Your task to perform on an android device: Open Youtube and go to "Your channel" Image 0: 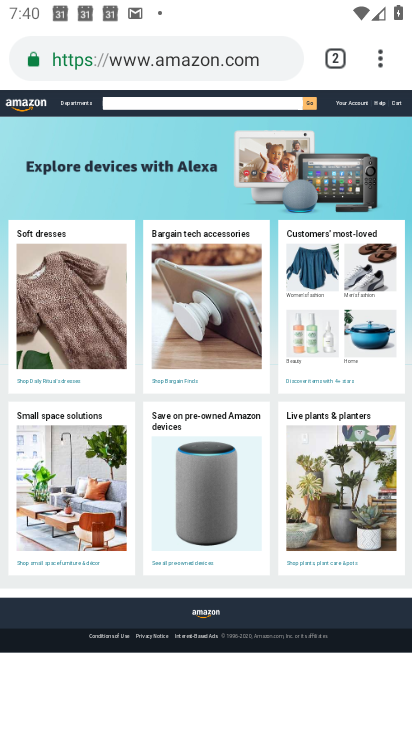
Step 0: press home button
Your task to perform on an android device: Open Youtube and go to "Your channel" Image 1: 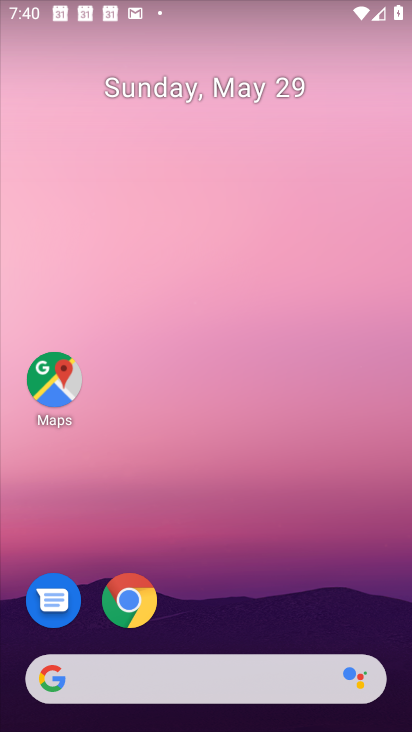
Step 1: drag from (314, 580) to (338, 150)
Your task to perform on an android device: Open Youtube and go to "Your channel" Image 2: 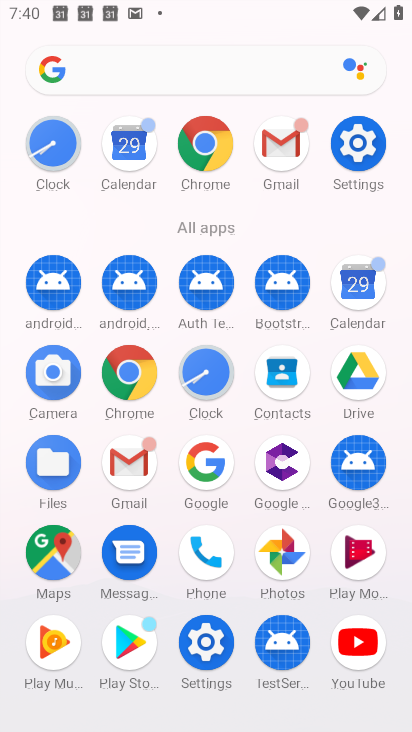
Step 2: click (352, 645)
Your task to perform on an android device: Open Youtube and go to "Your channel" Image 3: 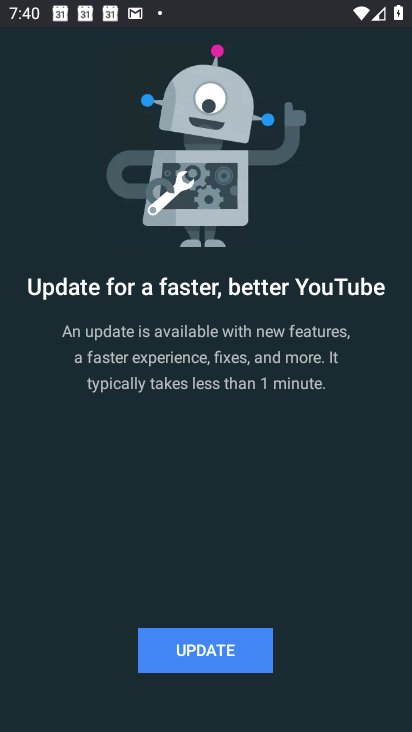
Step 3: click (198, 647)
Your task to perform on an android device: Open Youtube and go to "Your channel" Image 4: 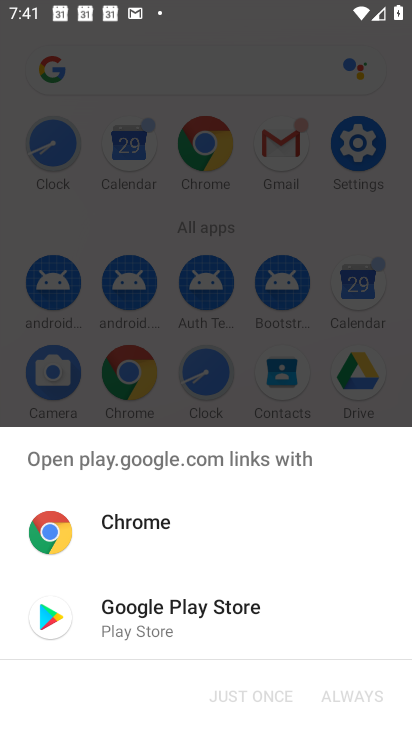
Step 4: click (197, 613)
Your task to perform on an android device: Open Youtube and go to "Your channel" Image 5: 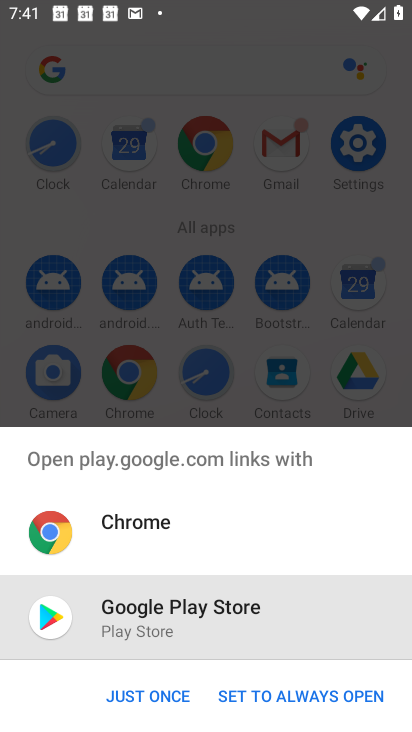
Step 5: click (121, 705)
Your task to perform on an android device: Open Youtube and go to "Your channel" Image 6: 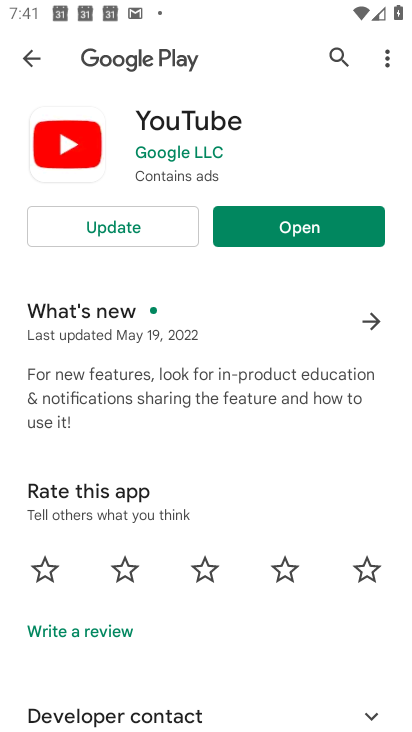
Step 6: click (156, 240)
Your task to perform on an android device: Open Youtube and go to "Your channel" Image 7: 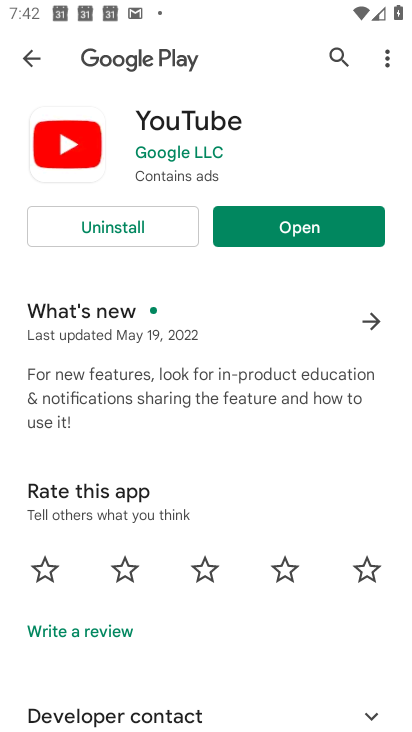
Step 7: click (310, 228)
Your task to perform on an android device: Open Youtube and go to "Your channel" Image 8: 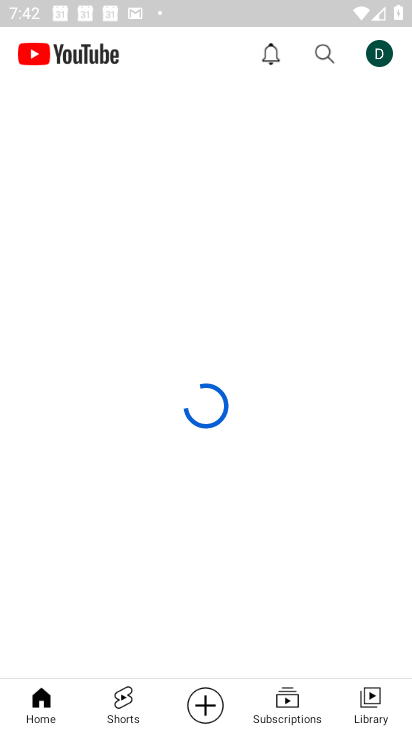
Step 8: click (380, 55)
Your task to perform on an android device: Open Youtube and go to "Your channel" Image 9: 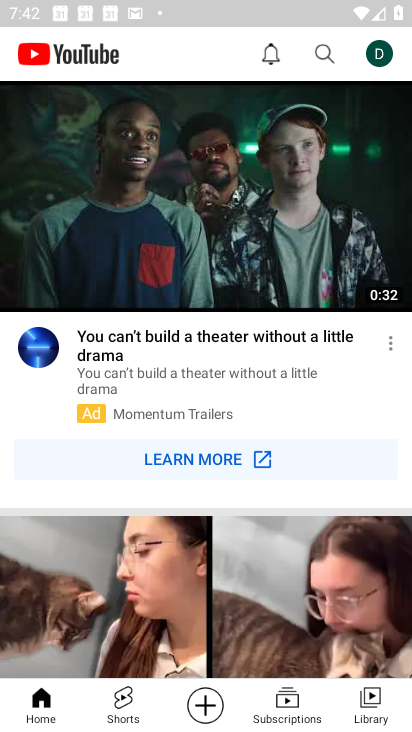
Step 9: click (392, 53)
Your task to perform on an android device: Open Youtube and go to "Your channel" Image 10: 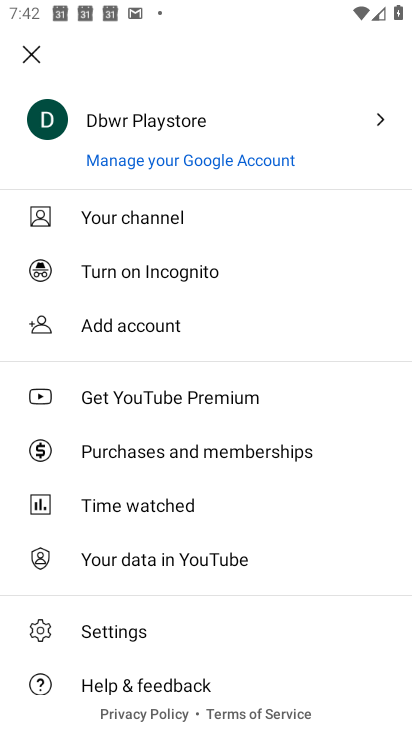
Step 10: click (201, 224)
Your task to perform on an android device: Open Youtube and go to "Your channel" Image 11: 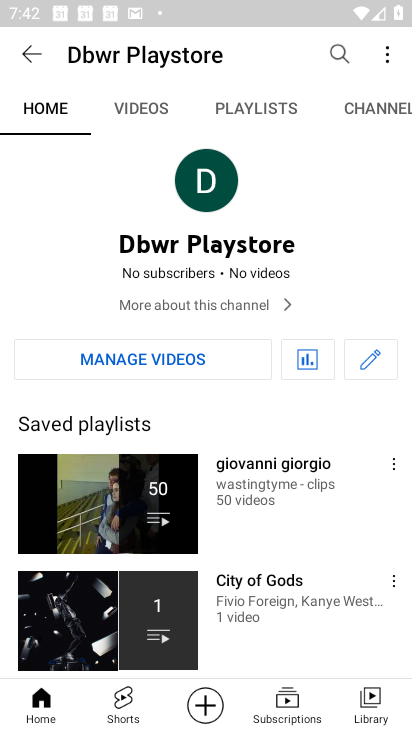
Step 11: task complete